Your task to perform on an android device: set the timer Image 0: 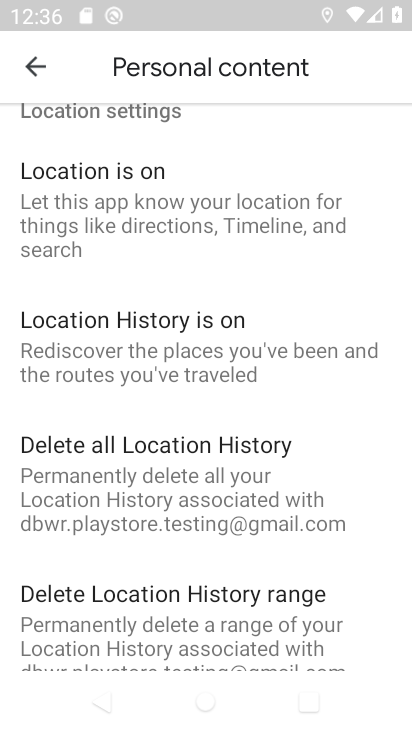
Step 0: press home button
Your task to perform on an android device: set the timer Image 1: 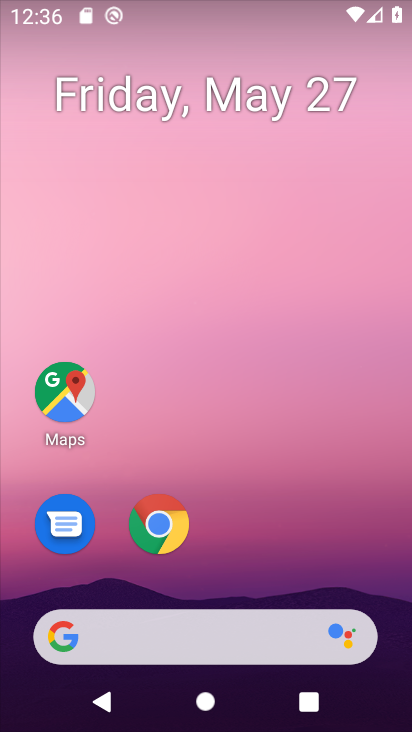
Step 1: drag from (273, 547) to (214, 53)
Your task to perform on an android device: set the timer Image 2: 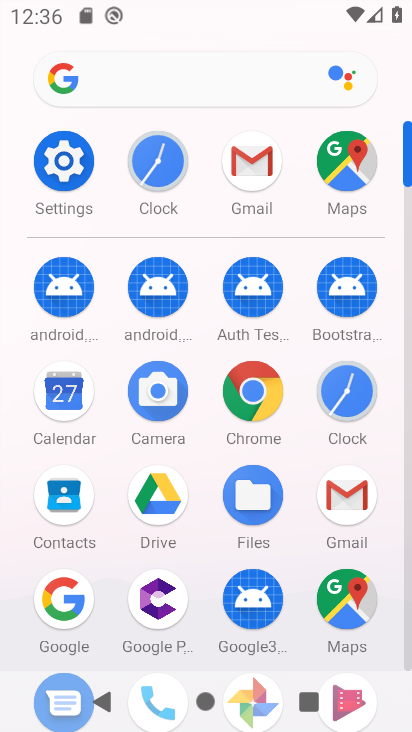
Step 2: click (157, 165)
Your task to perform on an android device: set the timer Image 3: 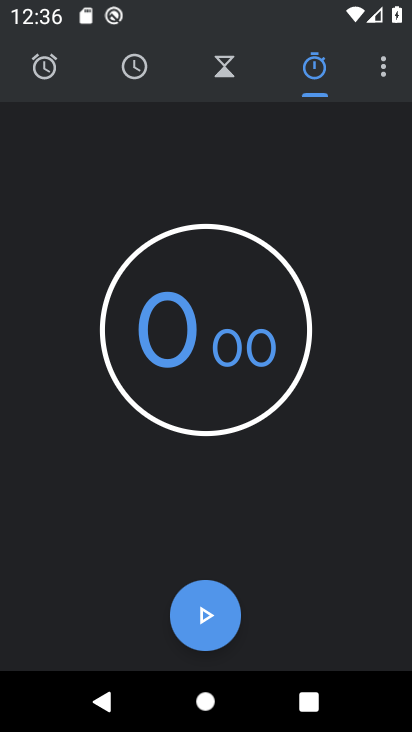
Step 3: click (224, 68)
Your task to perform on an android device: set the timer Image 4: 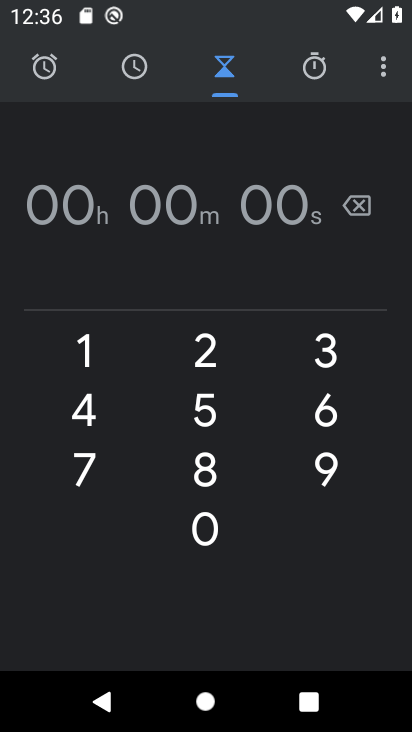
Step 4: click (85, 351)
Your task to perform on an android device: set the timer Image 5: 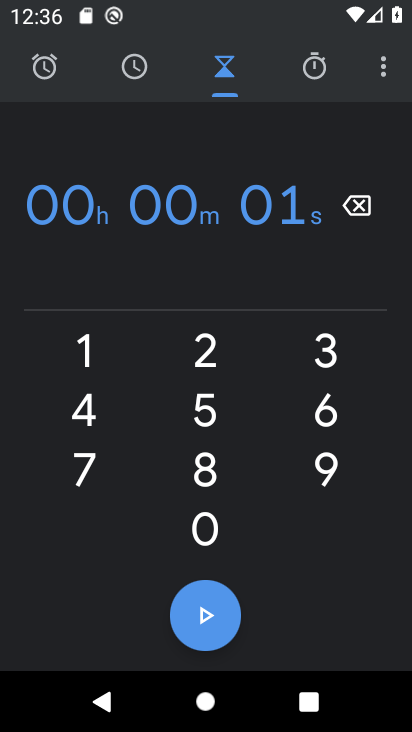
Step 5: click (81, 410)
Your task to perform on an android device: set the timer Image 6: 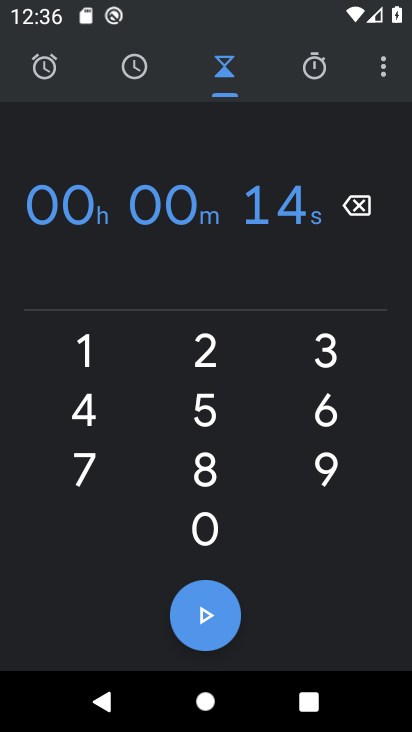
Step 6: task complete